Your task to perform on an android device: snooze an email in the gmail app Image 0: 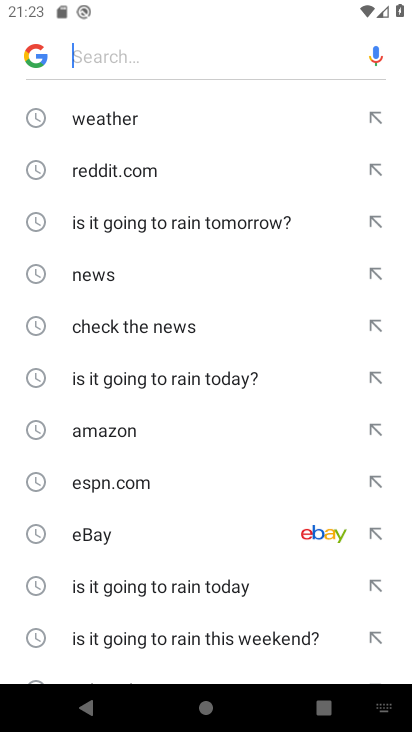
Step 0: press home button
Your task to perform on an android device: snooze an email in the gmail app Image 1: 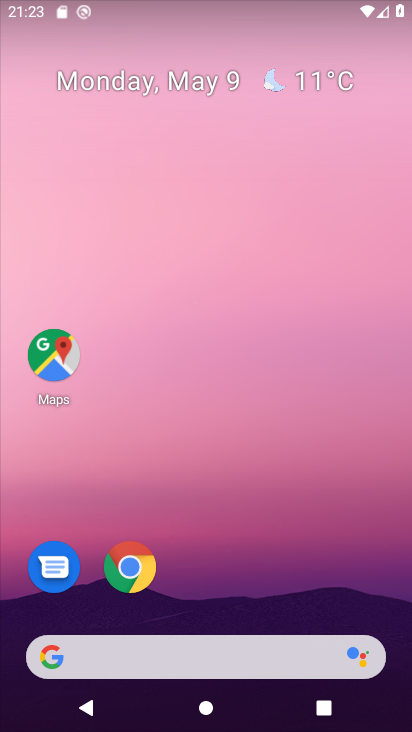
Step 1: drag from (274, 456) to (217, 17)
Your task to perform on an android device: snooze an email in the gmail app Image 2: 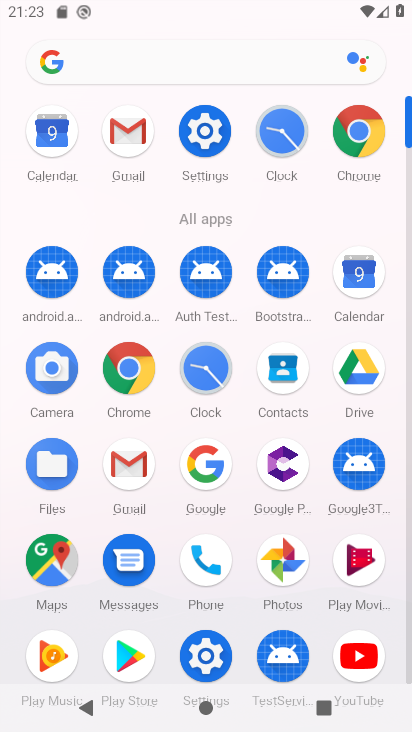
Step 2: click (135, 463)
Your task to perform on an android device: snooze an email in the gmail app Image 3: 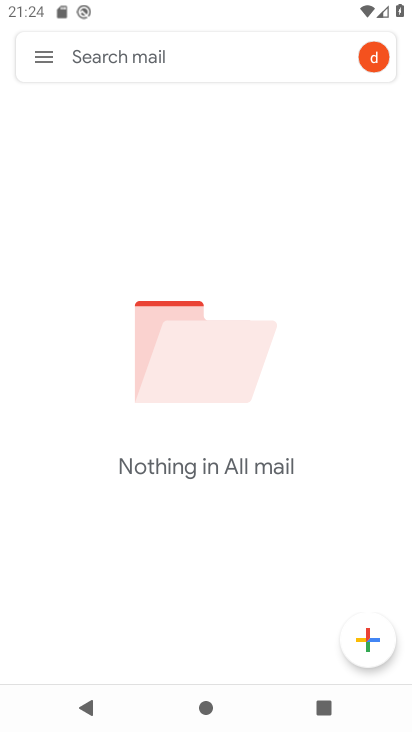
Step 3: click (40, 57)
Your task to perform on an android device: snooze an email in the gmail app Image 4: 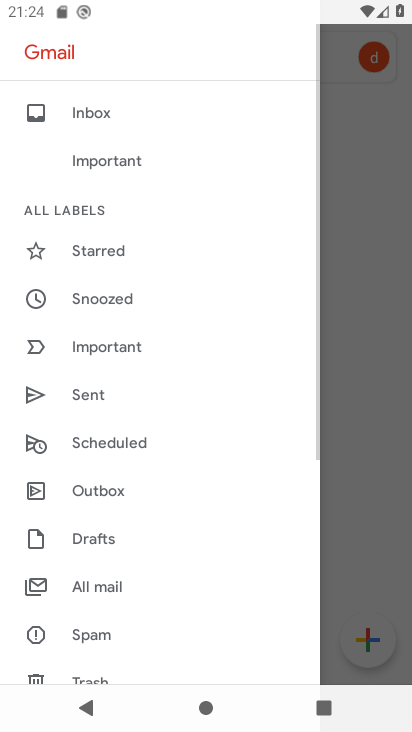
Step 4: click (142, 588)
Your task to perform on an android device: snooze an email in the gmail app Image 5: 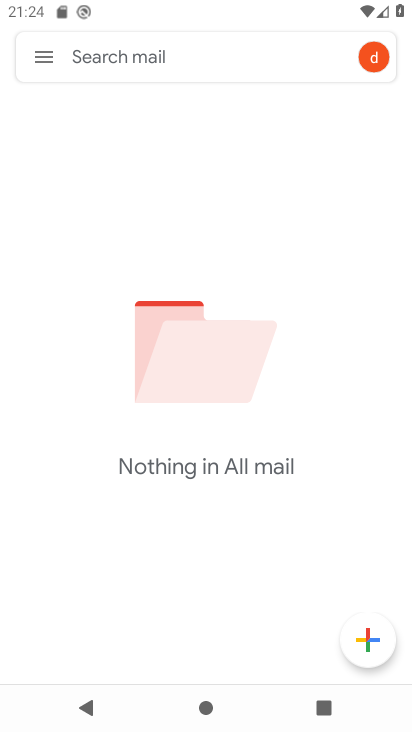
Step 5: task complete